Your task to perform on an android device: Search for hotels in Boston Image 0: 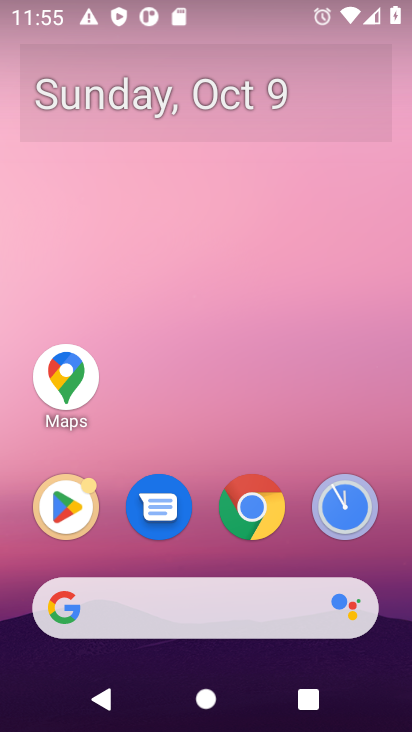
Step 0: click (278, 602)
Your task to perform on an android device: Search for hotels in Boston Image 1: 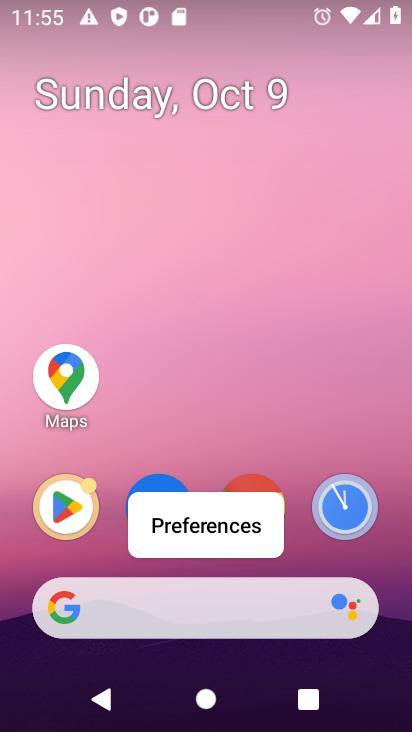
Step 1: click (160, 602)
Your task to perform on an android device: Search for hotels in Boston Image 2: 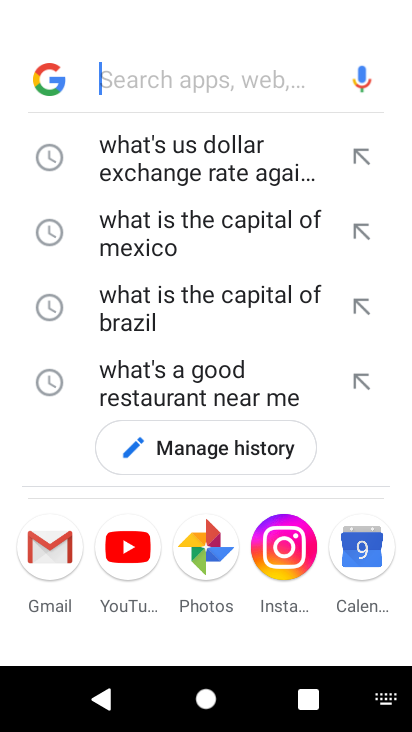
Step 2: press enter
Your task to perform on an android device: Search for hotels in Boston Image 3: 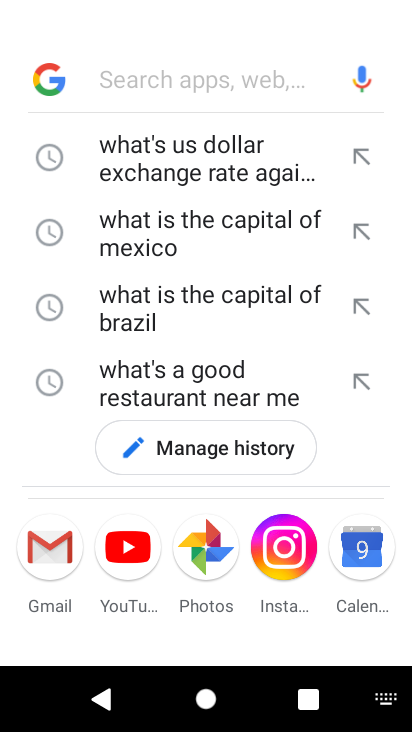
Step 3: type "Search for hotels in Boston"
Your task to perform on an android device: Search for hotels in Boston Image 4: 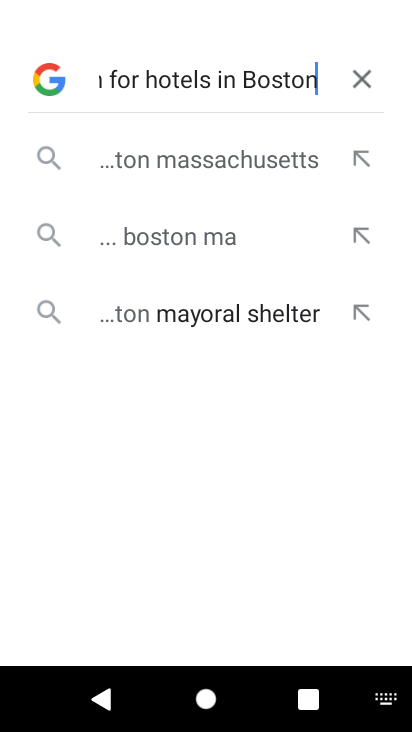
Step 4: press enter
Your task to perform on an android device: Search for hotels in Boston Image 5: 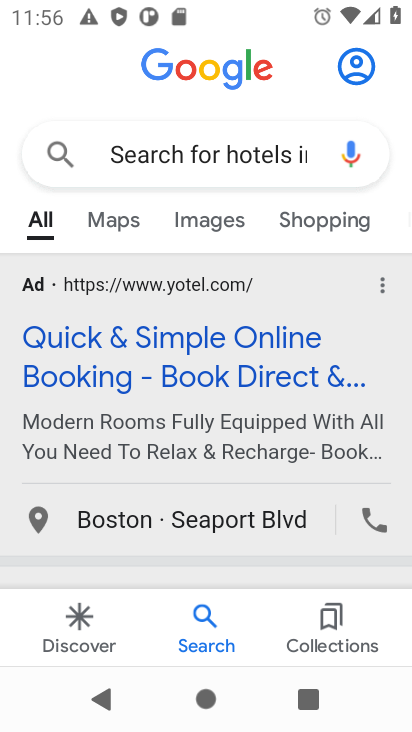
Step 5: drag from (313, 441) to (321, 265)
Your task to perform on an android device: Search for hotels in Boston Image 6: 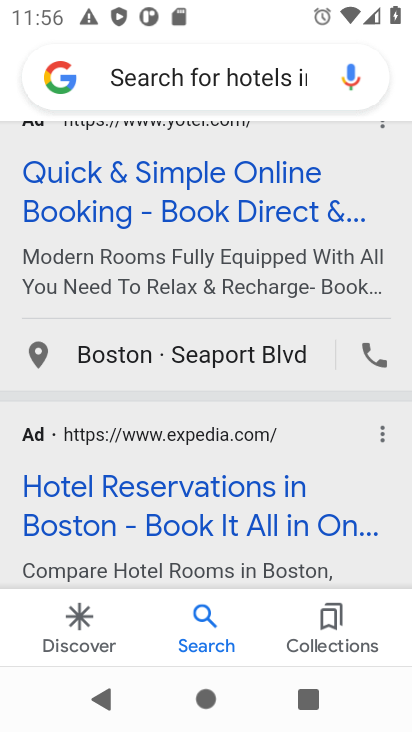
Step 6: drag from (273, 452) to (270, 232)
Your task to perform on an android device: Search for hotels in Boston Image 7: 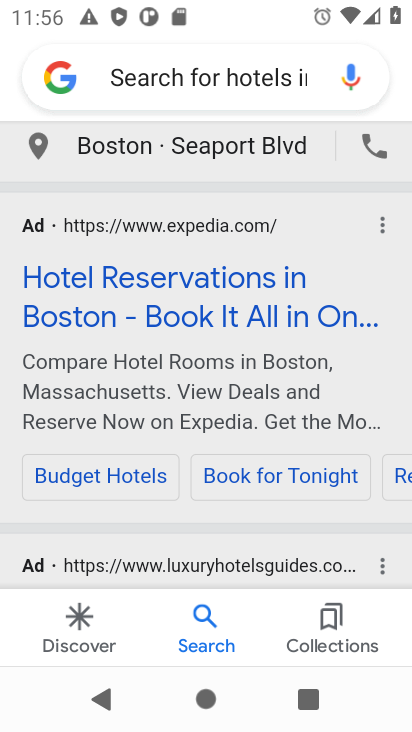
Step 7: click (231, 310)
Your task to perform on an android device: Search for hotels in Boston Image 8: 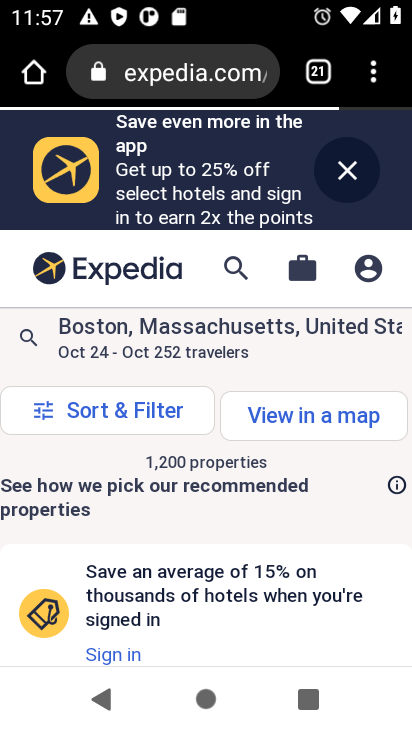
Step 8: task complete